Your task to perform on an android device: remove spam from my inbox in the gmail app Image 0: 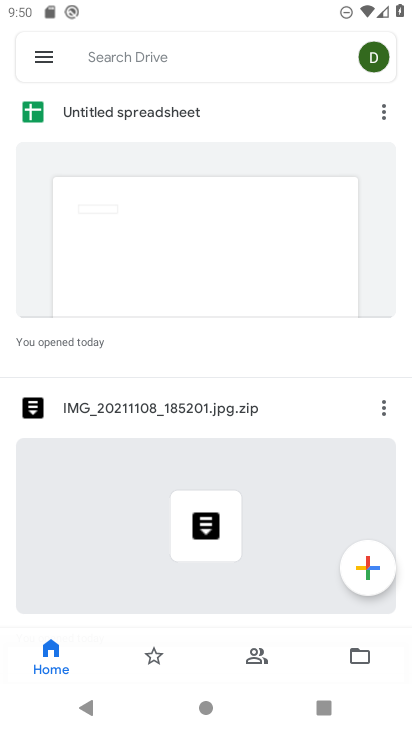
Step 0: press home button
Your task to perform on an android device: remove spam from my inbox in the gmail app Image 1: 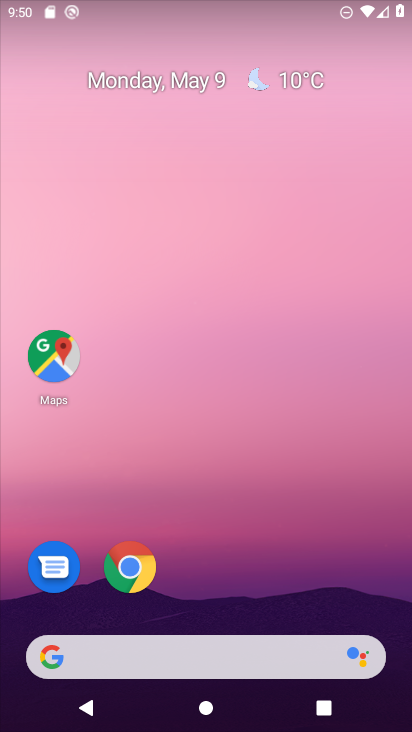
Step 1: drag from (267, 521) to (241, 8)
Your task to perform on an android device: remove spam from my inbox in the gmail app Image 2: 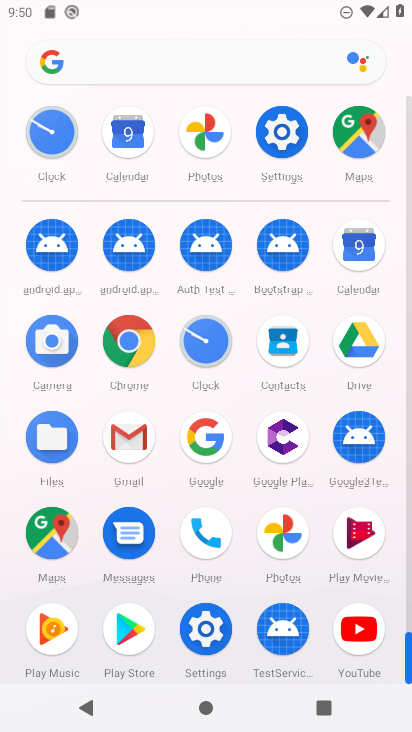
Step 2: click (133, 439)
Your task to perform on an android device: remove spam from my inbox in the gmail app Image 3: 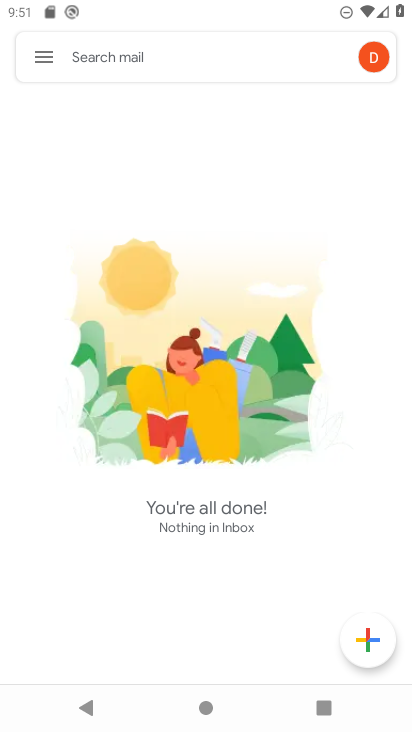
Step 3: click (42, 56)
Your task to perform on an android device: remove spam from my inbox in the gmail app Image 4: 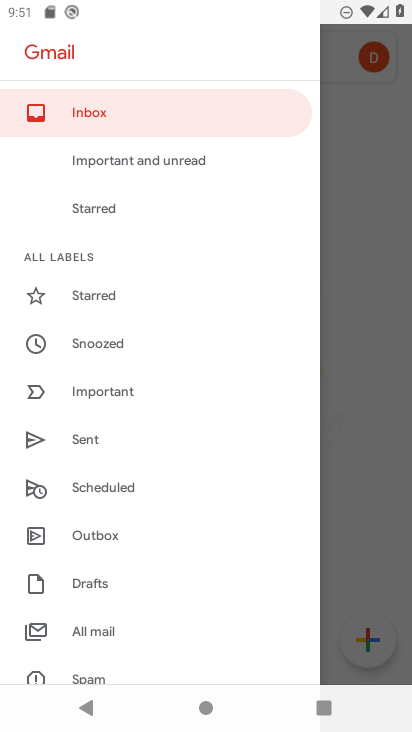
Step 4: click (87, 666)
Your task to perform on an android device: remove spam from my inbox in the gmail app Image 5: 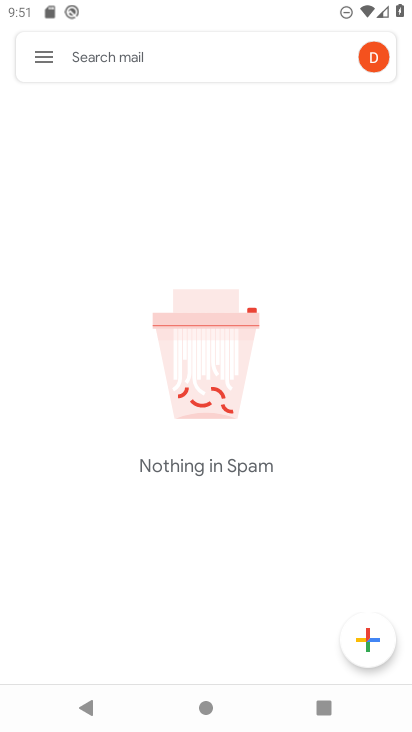
Step 5: task complete